Your task to perform on an android device: Search for razer thresher on walmart.com, select the first entry, add it to the cart, then select checkout. Image 0: 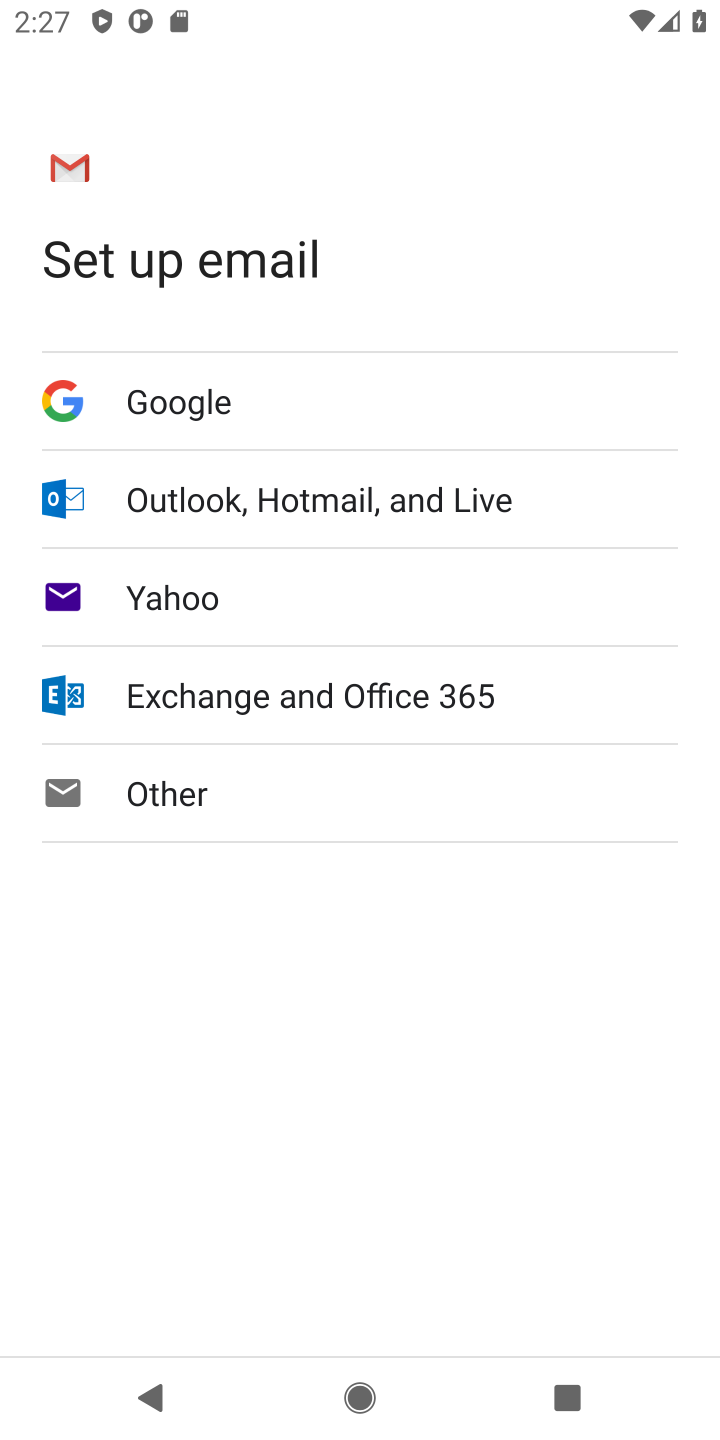
Step 0: press home button
Your task to perform on an android device: Search for razer thresher on walmart.com, select the first entry, add it to the cart, then select checkout. Image 1: 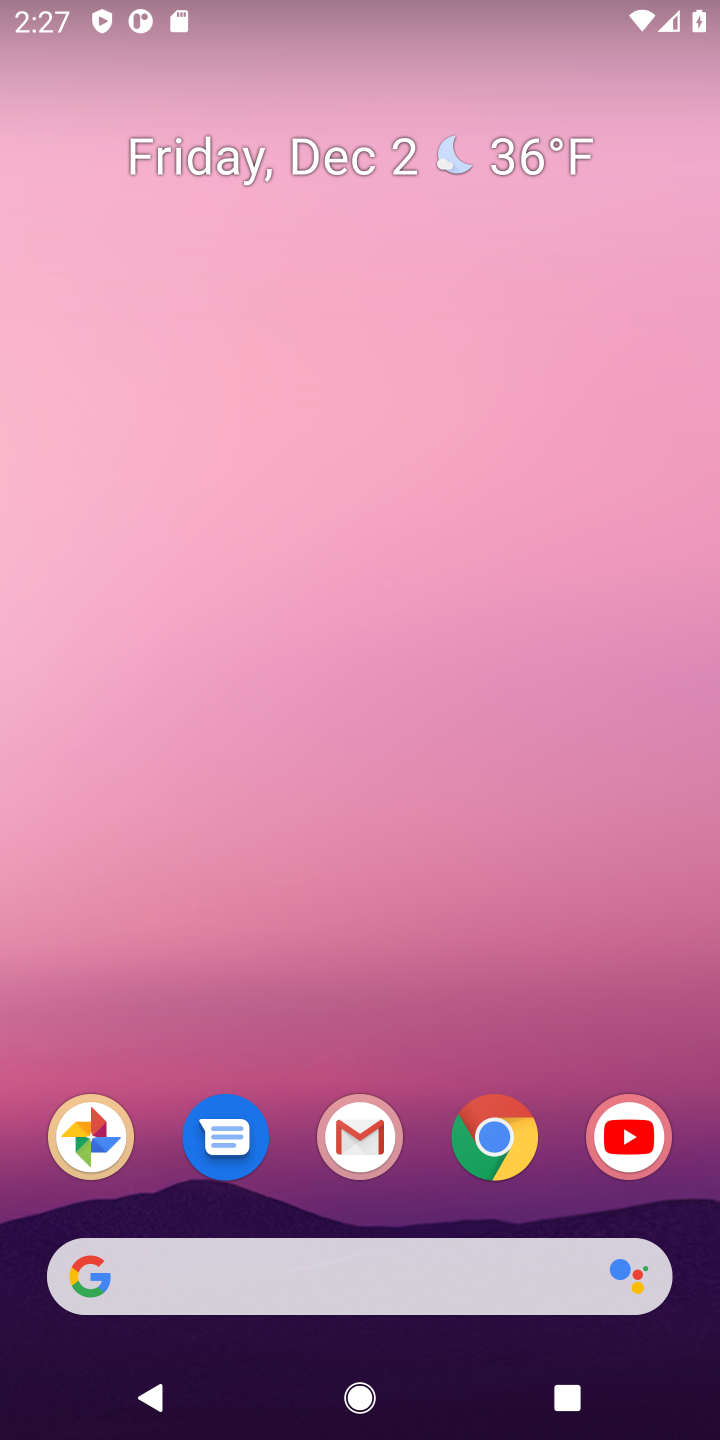
Step 1: drag from (264, 1227) to (348, 342)
Your task to perform on an android device: Search for razer thresher on walmart.com, select the first entry, add it to the cart, then select checkout. Image 2: 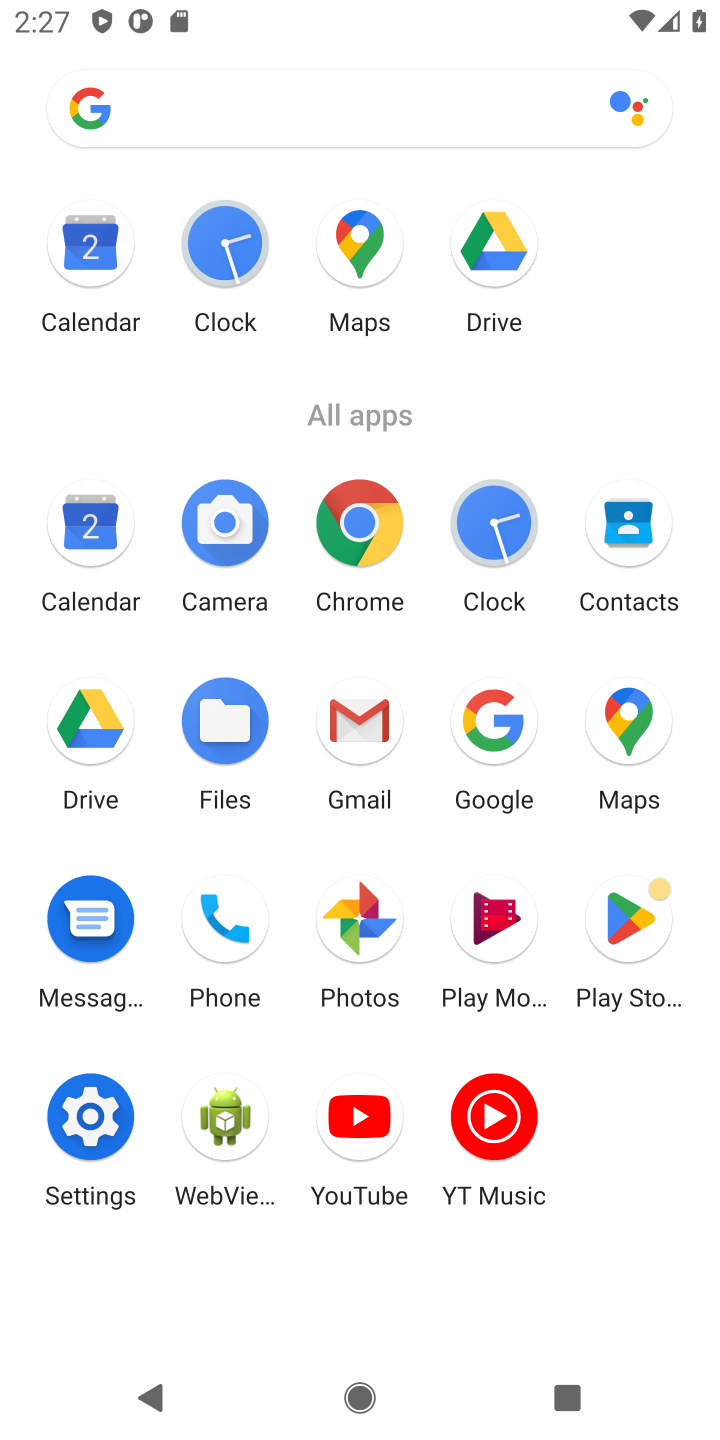
Step 2: click (502, 718)
Your task to perform on an android device: Search for razer thresher on walmart.com, select the first entry, add it to the cart, then select checkout. Image 3: 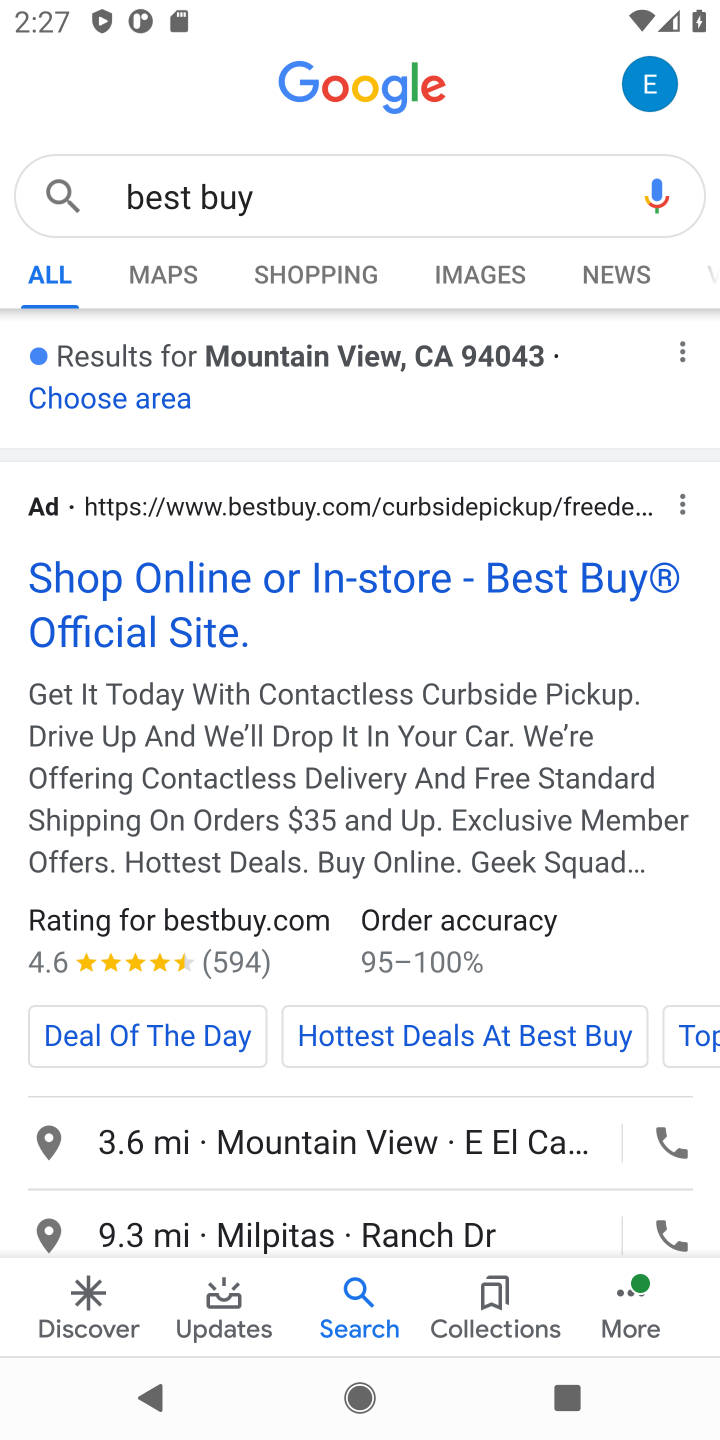
Step 3: click (283, 200)
Your task to perform on an android device: Search for razer thresher on walmart.com, select the first entry, add it to the cart, then select checkout. Image 4: 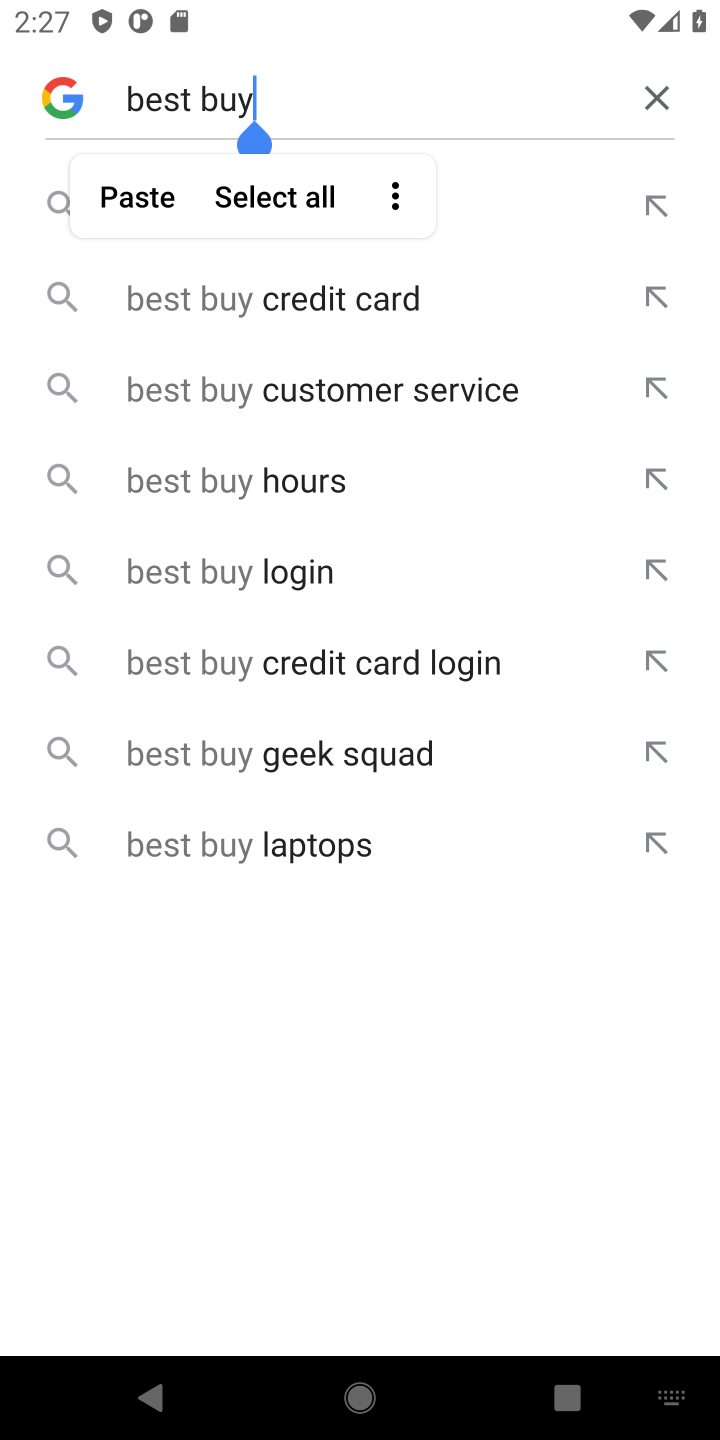
Step 4: click (674, 89)
Your task to perform on an android device: Search for razer thresher on walmart.com, select the first entry, add it to the cart, then select checkout. Image 5: 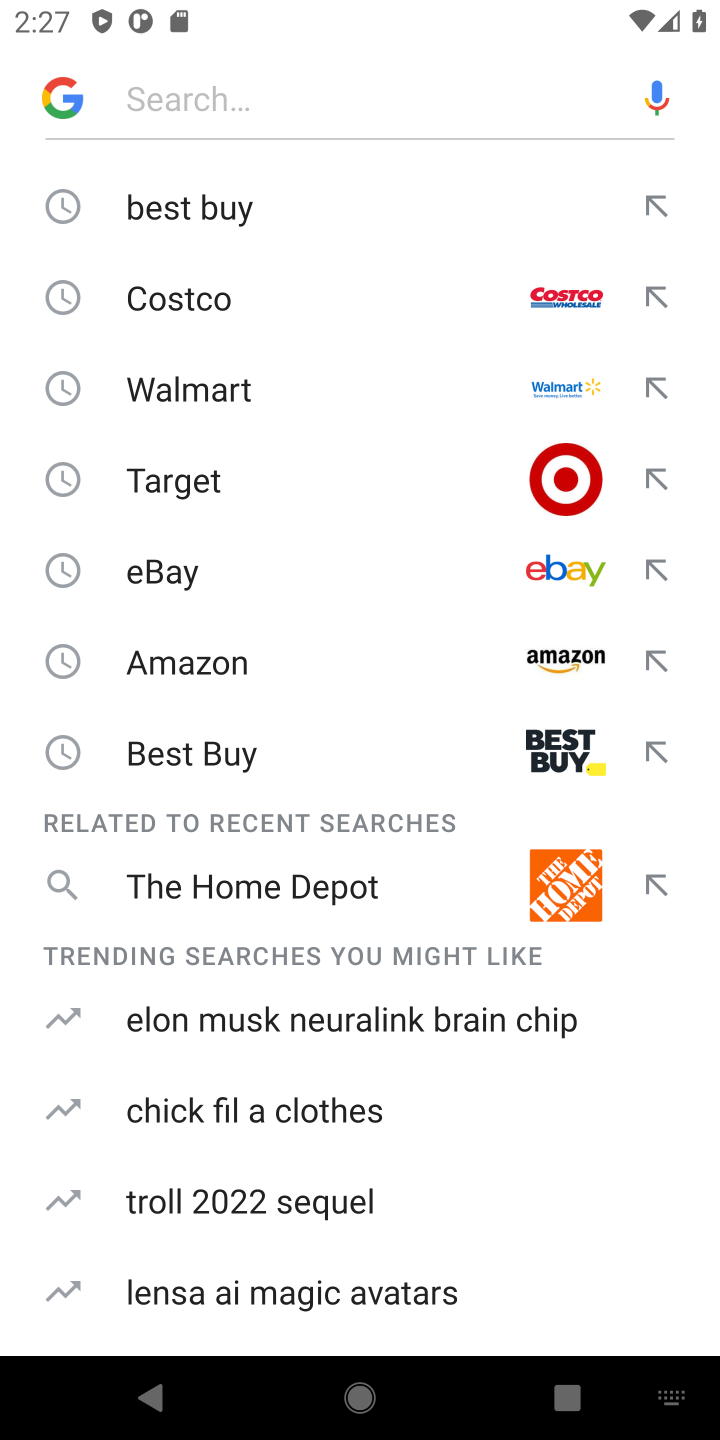
Step 5: type "walmart.com"
Your task to perform on an android device: Search for razer thresher on walmart.com, select the first entry, add it to the cart, then select checkout. Image 6: 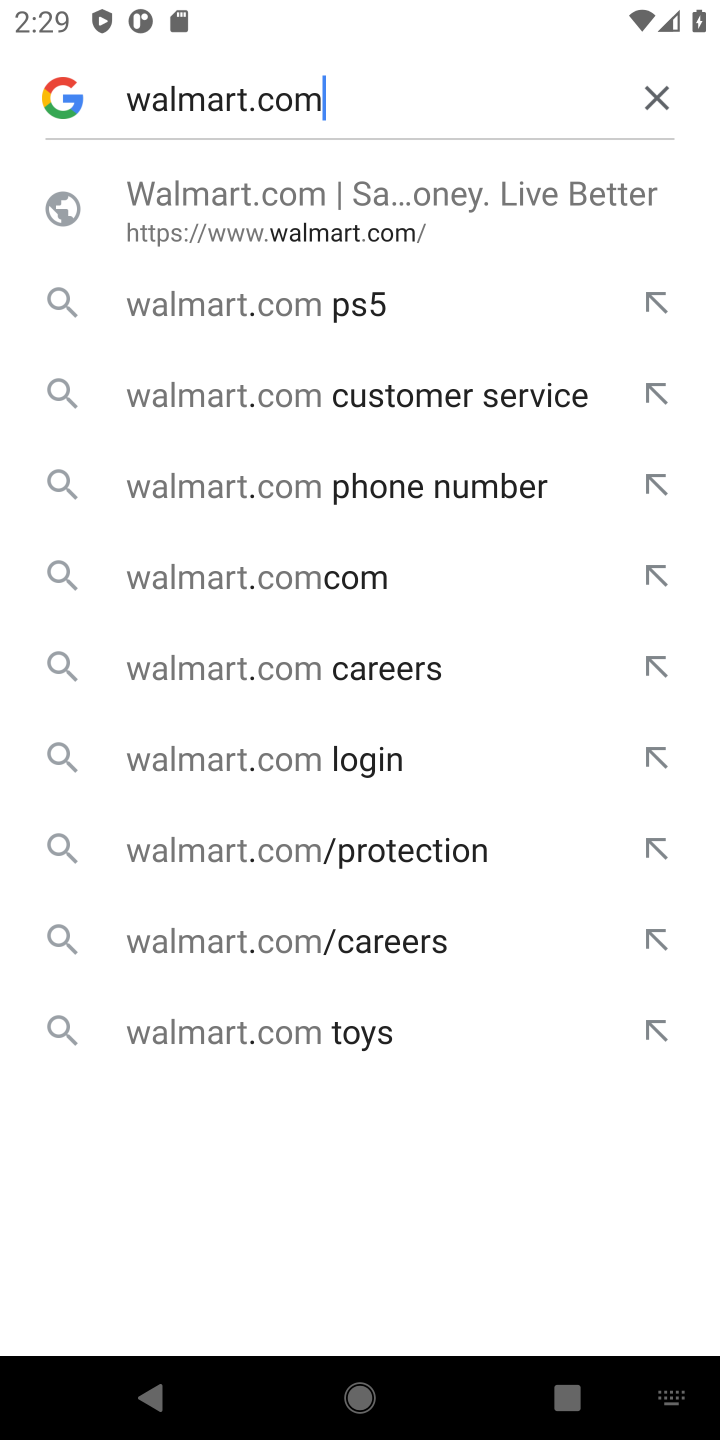
Step 6: click (348, 196)
Your task to perform on an android device: Search for razer thresher on walmart.com, select the first entry, add it to the cart, then select checkout. Image 7: 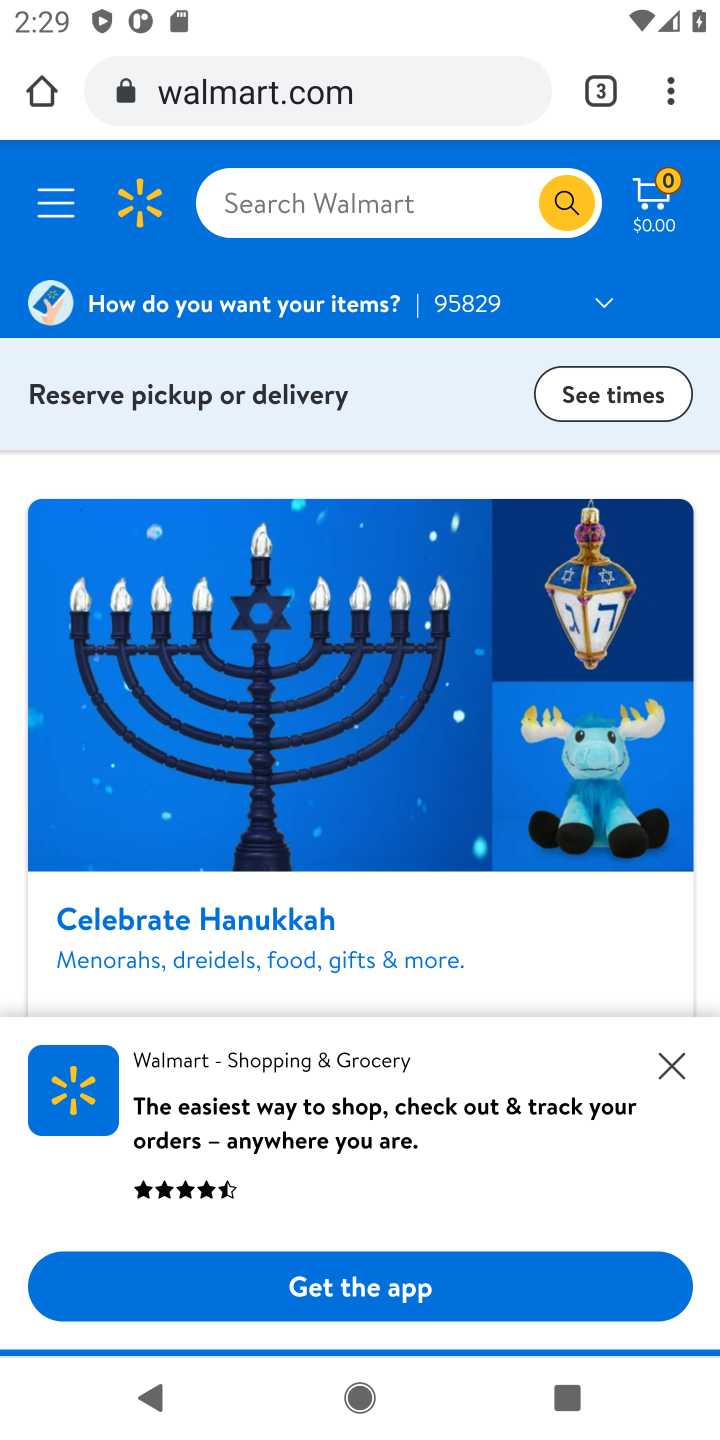
Step 7: click (251, 186)
Your task to perform on an android device: Search for razer thresher on walmart.com, select the first entry, add it to the cart, then select checkout. Image 8: 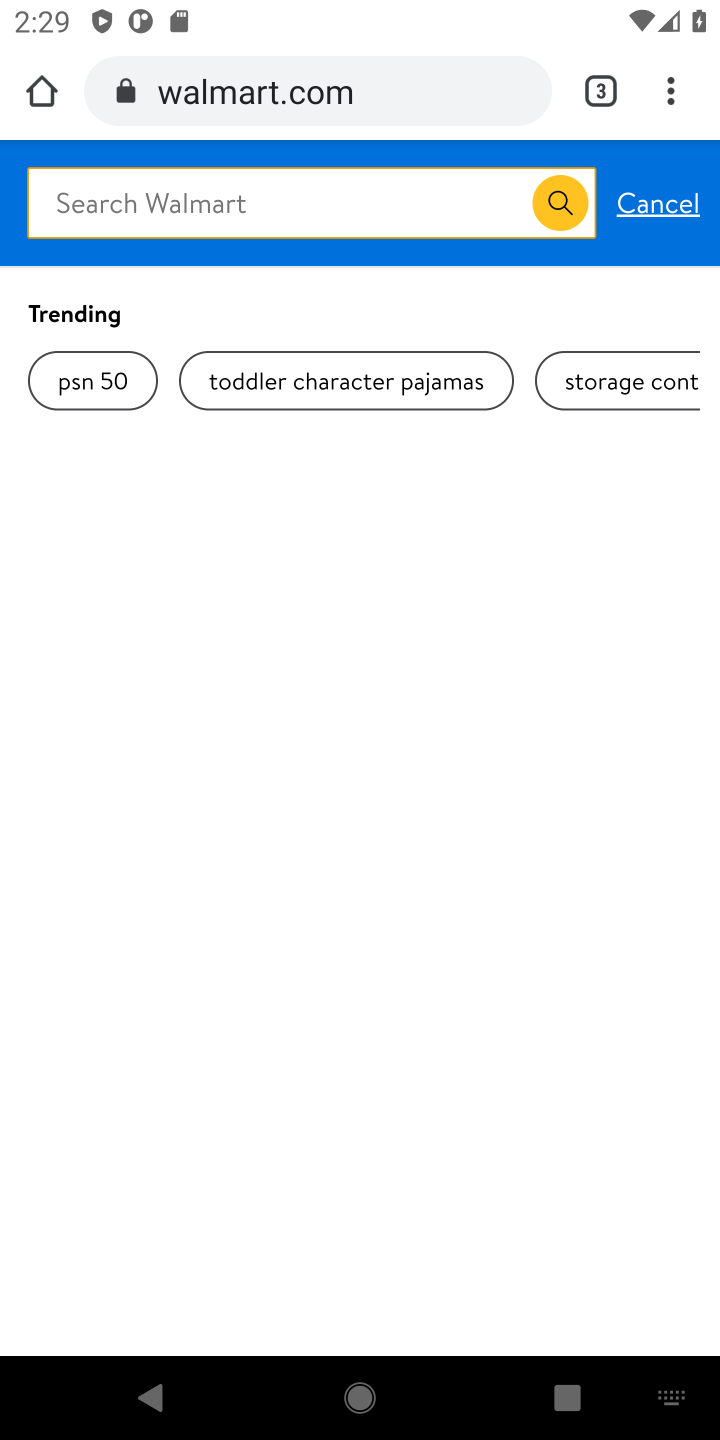
Step 8: type "razer thresher"
Your task to perform on an android device: Search for razer thresher on walmart.com, select the first entry, add it to the cart, then select checkout. Image 9: 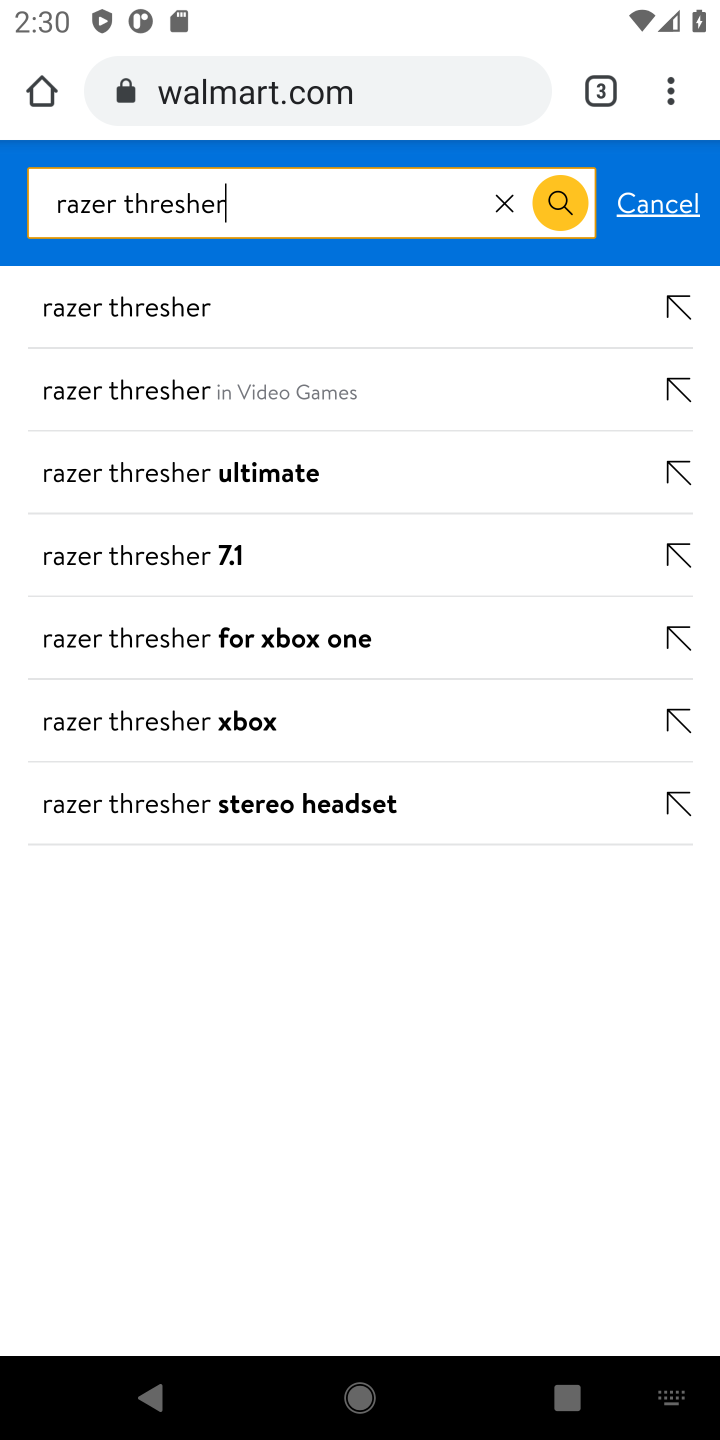
Step 9: click (194, 317)
Your task to perform on an android device: Search for razer thresher on walmart.com, select the first entry, add it to the cart, then select checkout. Image 10: 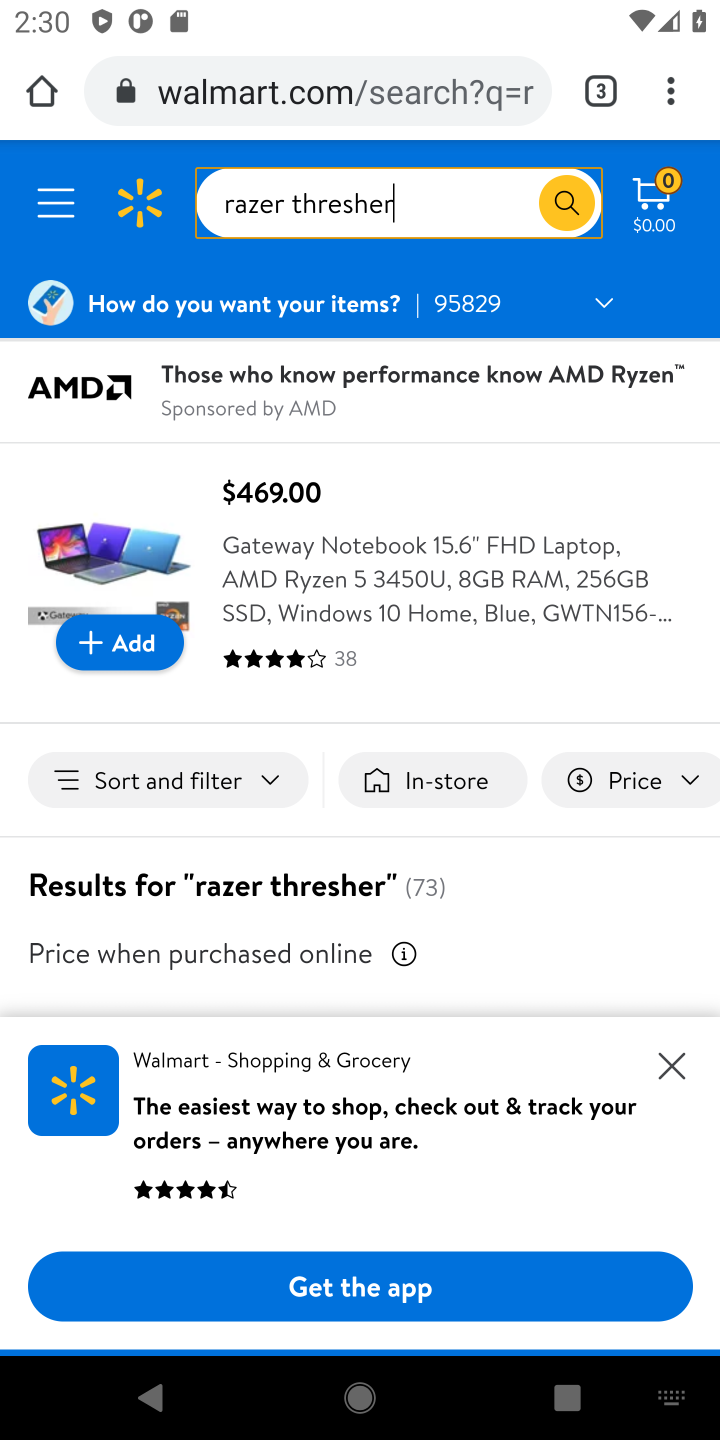
Step 10: drag from (480, 913) to (480, 410)
Your task to perform on an android device: Search for razer thresher on walmart.com, select the first entry, add it to the cart, then select checkout. Image 11: 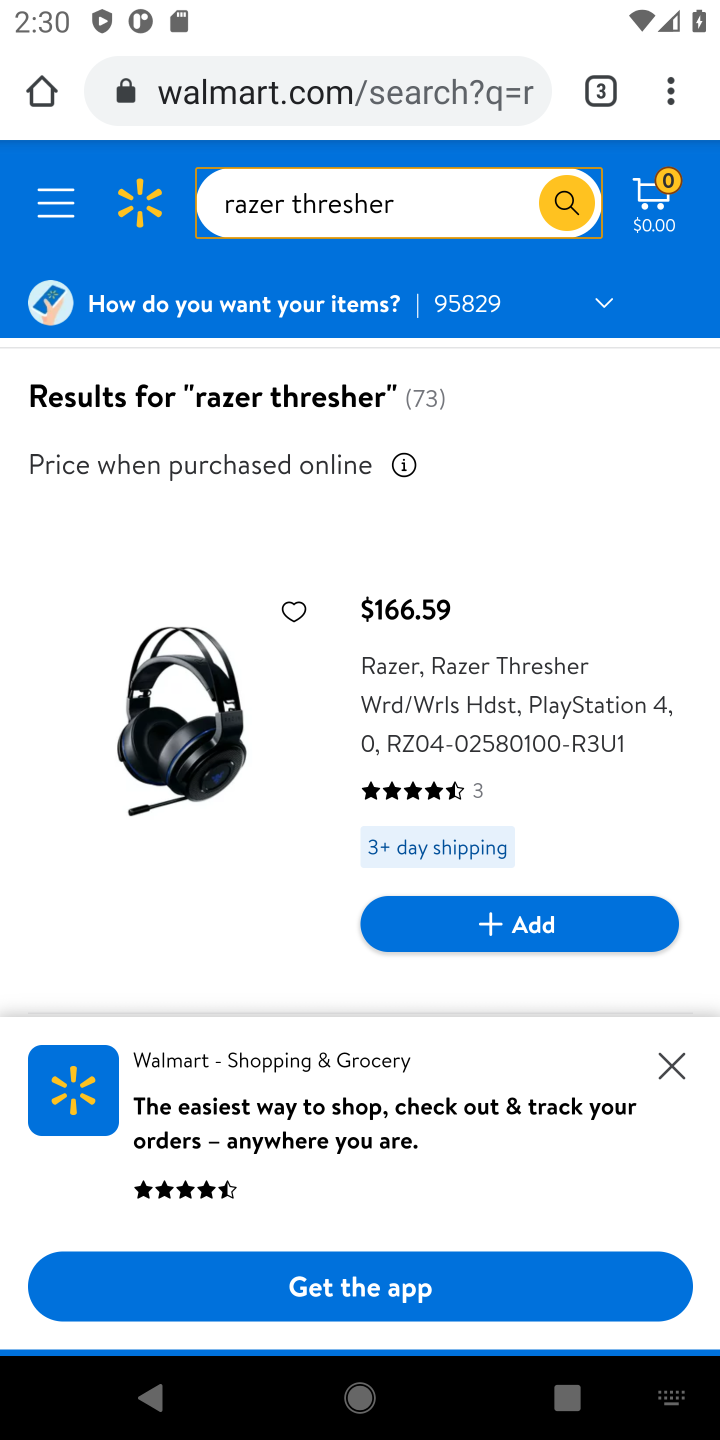
Step 11: click (503, 929)
Your task to perform on an android device: Search for razer thresher on walmart.com, select the first entry, add it to the cart, then select checkout. Image 12: 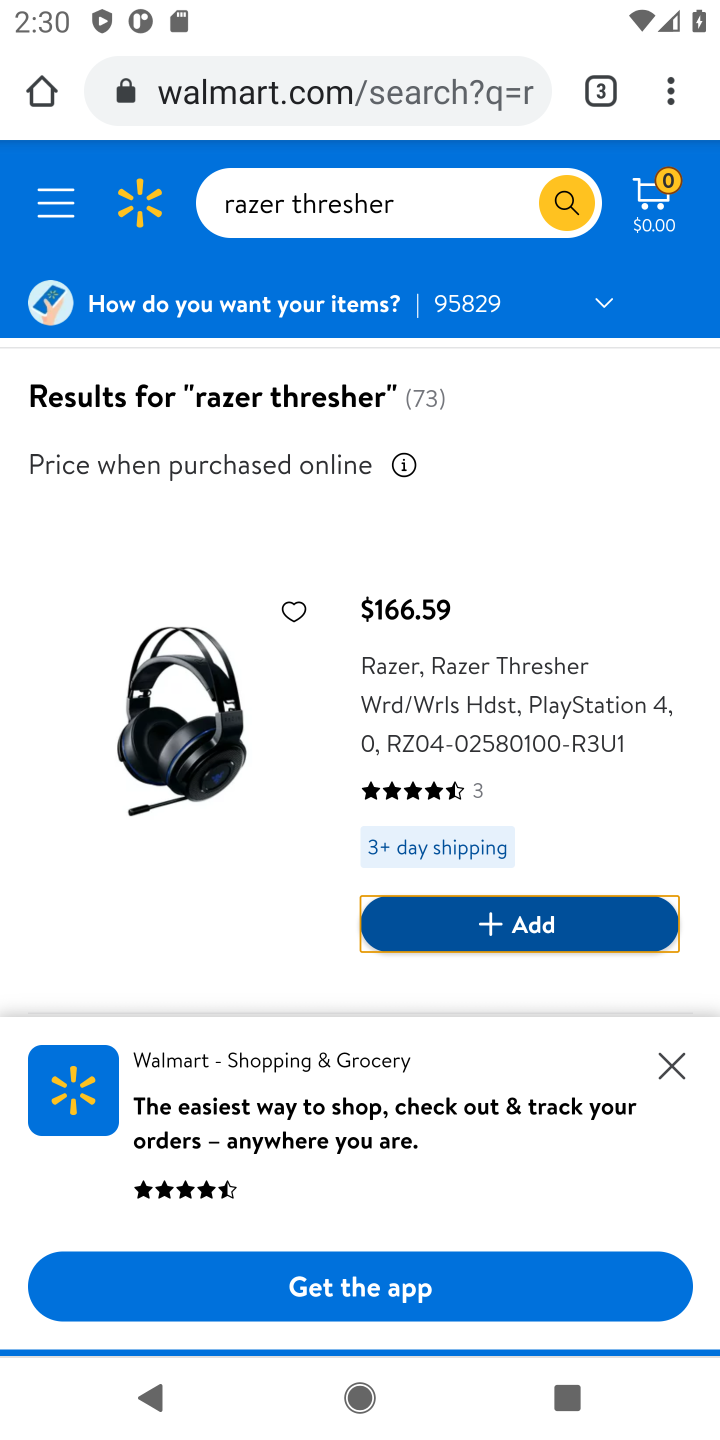
Step 12: click (564, 928)
Your task to perform on an android device: Search for razer thresher on walmart.com, select the first entry, add it to the cart, then select checkout. Image 13: 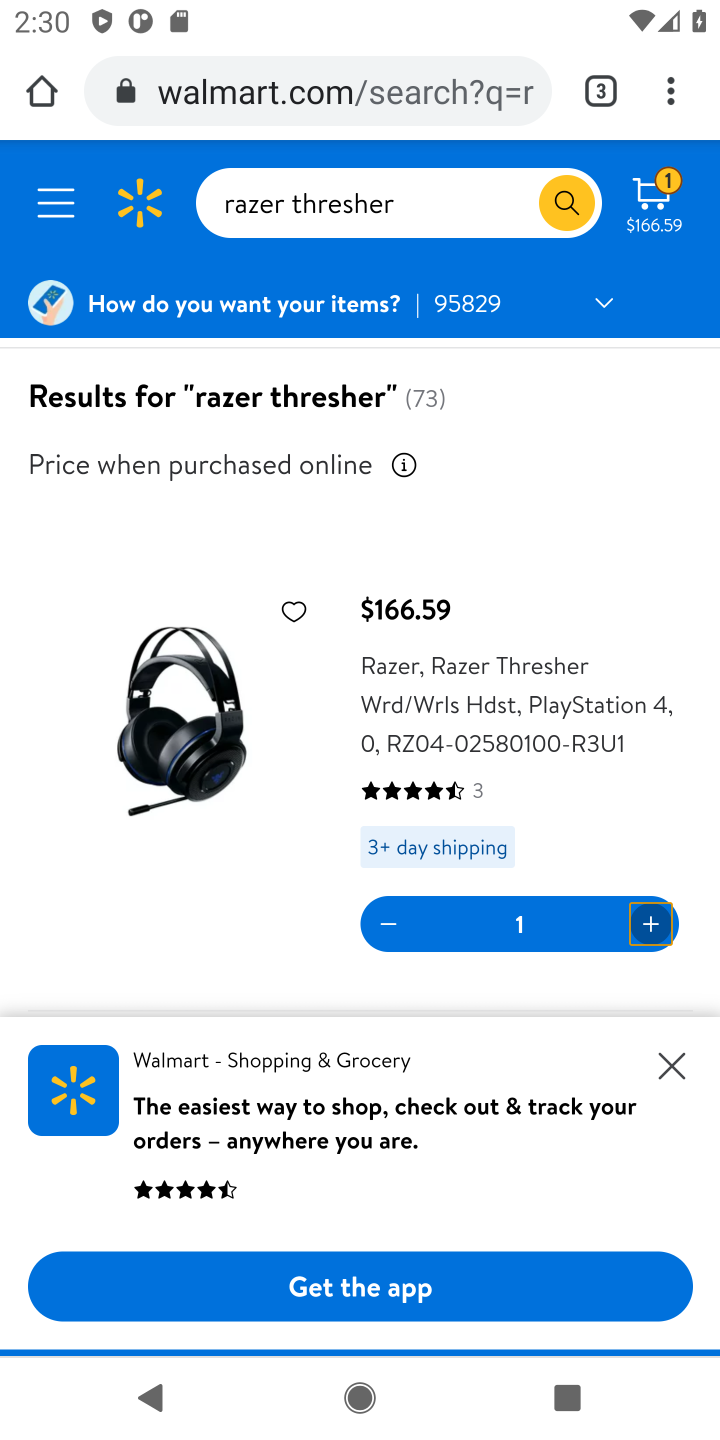
Step 13: click (662, 198)
Your task to perform on an android device: Search for razer thresher on walmart.com, select the first entry, add it to the cart, then select checkout. Image 14: 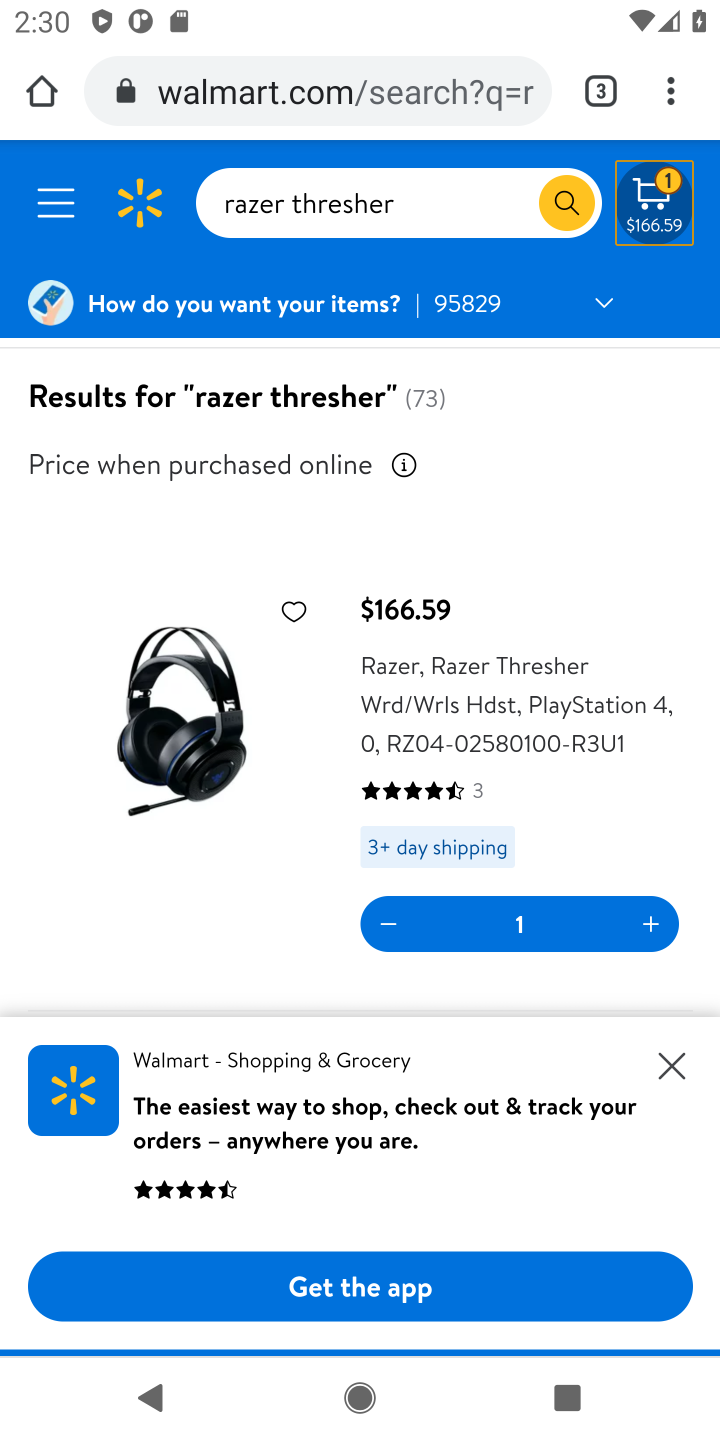
Step 14: click (638, 228)
Your task to perform on an android device: Search for razer thresher on walmart.com, select the first entry, add it to the cart, then select checkout. Image 15: 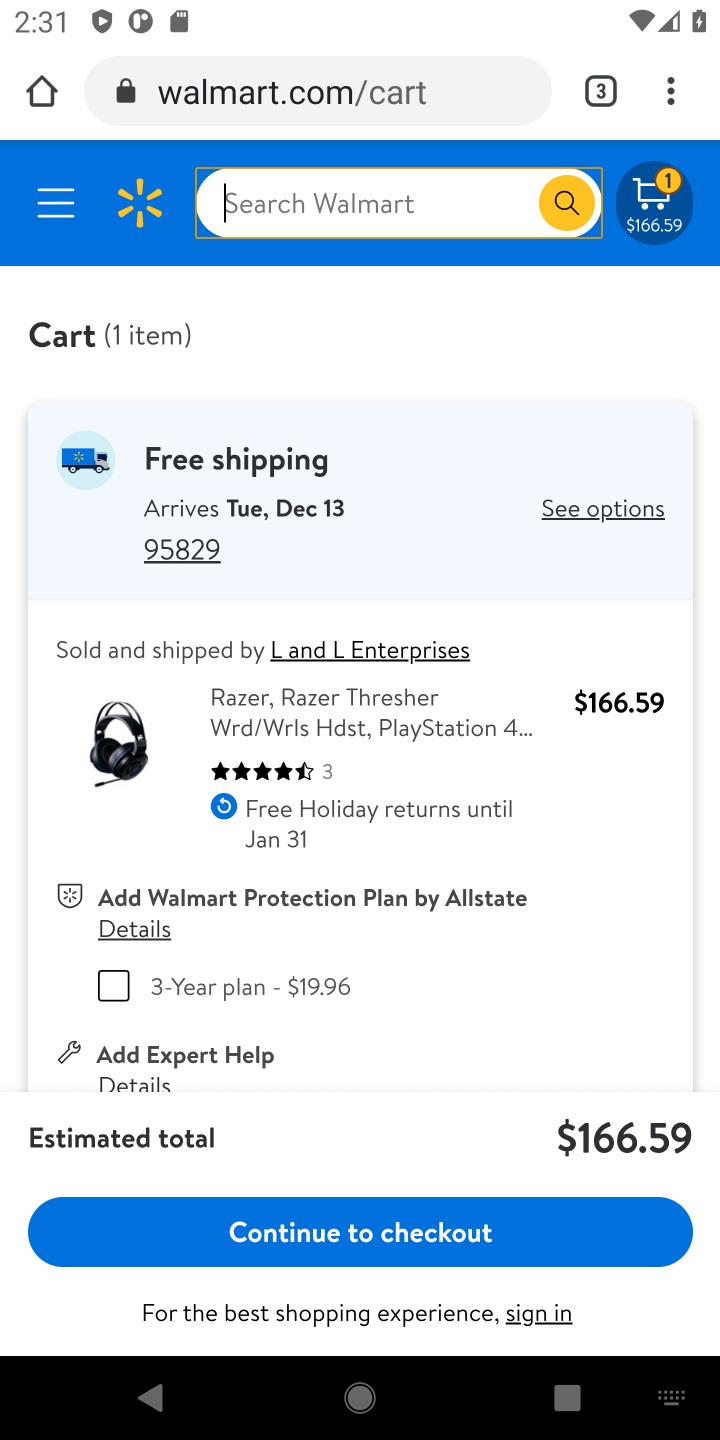
Step 15: click (304, 1225)
Your task to perform on an android device: Search for razer thresher on walmart.com, select the first entry, add it to the cart, then select checkout. Image 16: 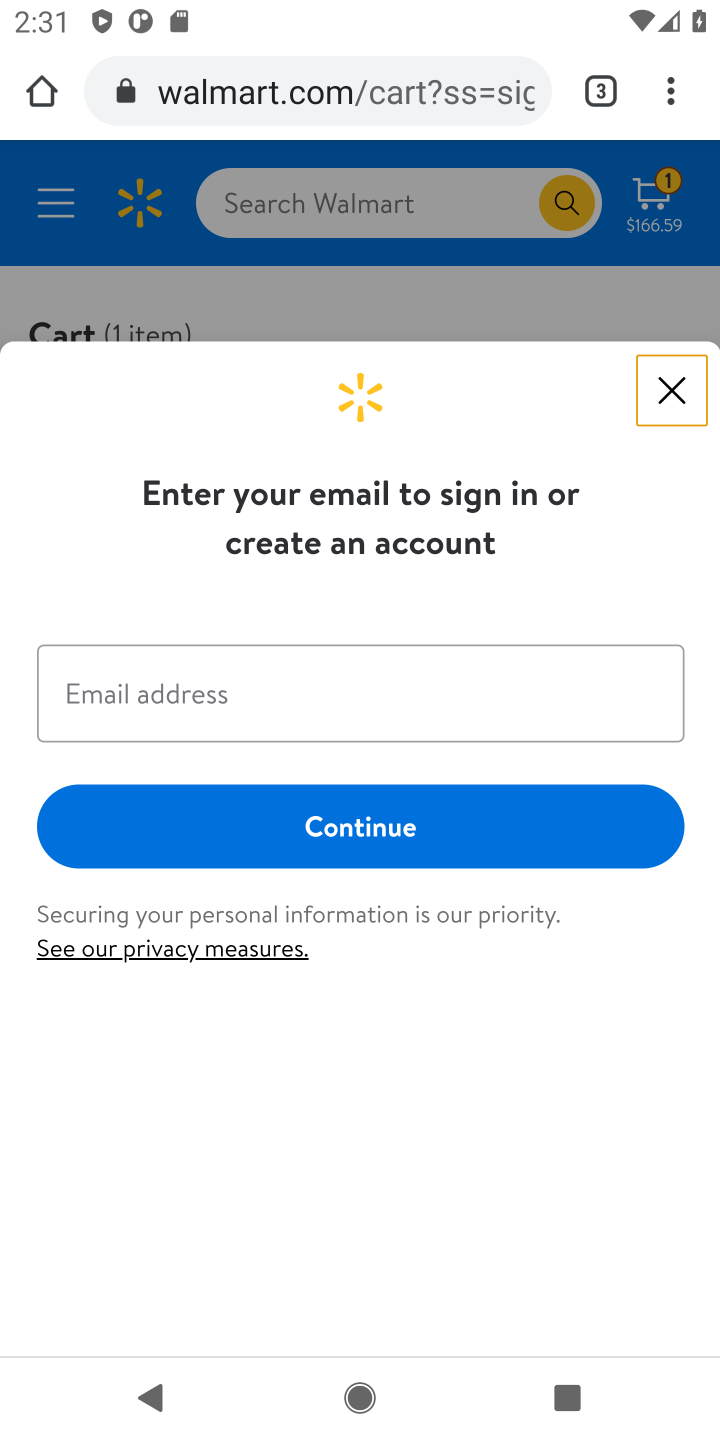
Step 16: task complete